Your task to perform on an android device: turn pop-ups off in chrome Image 0: 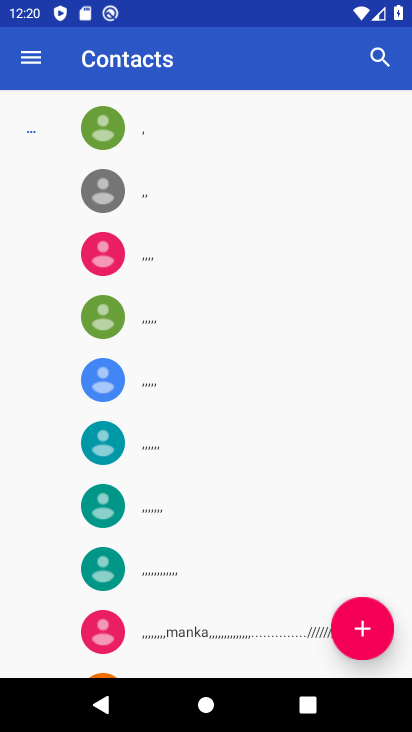
Step 0: press home button
Your task to perform on an android device: turn pop-ups off in chrome Image 1: 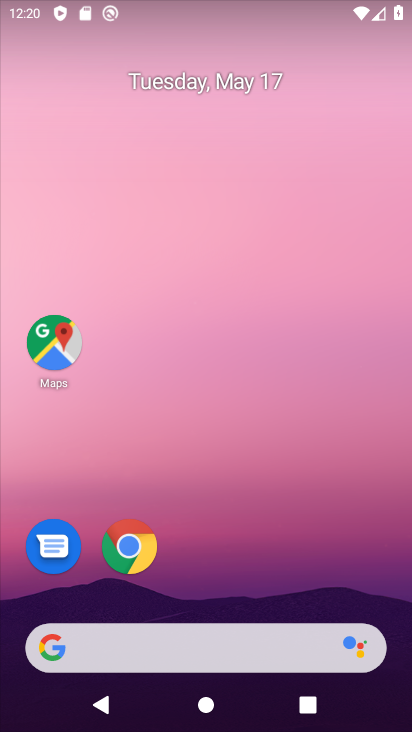
Step 1: click (147, 543)
Your task to perform on an android device: turn pop-ups off in chrome Image 2: 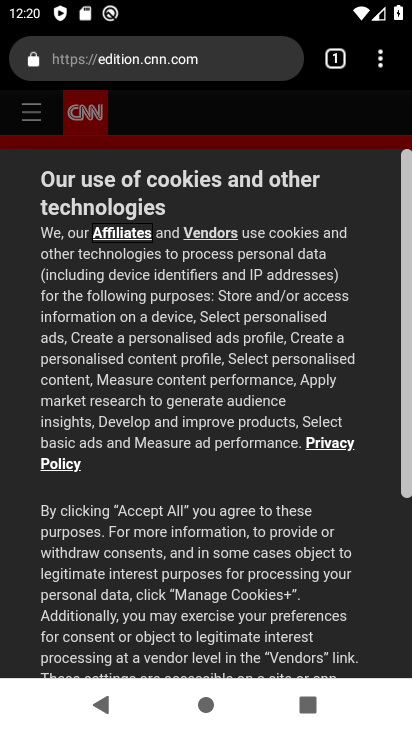
Step 2: drag from (376, 63) to (194, 575)
Your task to perform on an android device: turn pop-ups off in chrome Image 3: 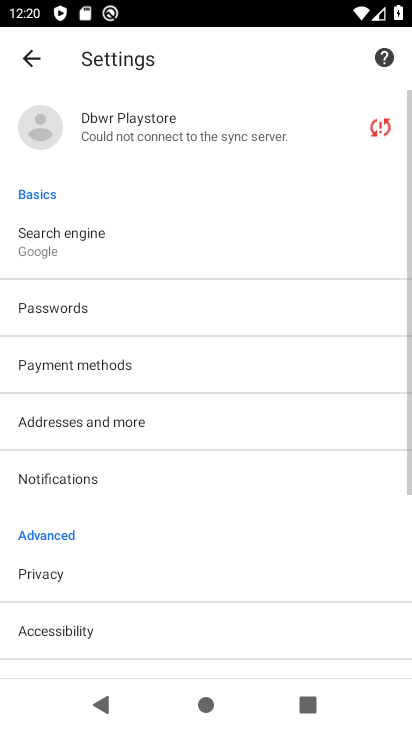
Step 3: drag from (220, 540) to (236, 277)
Your task to perform on an android device: turn pop-ups off in chrome Image 4: 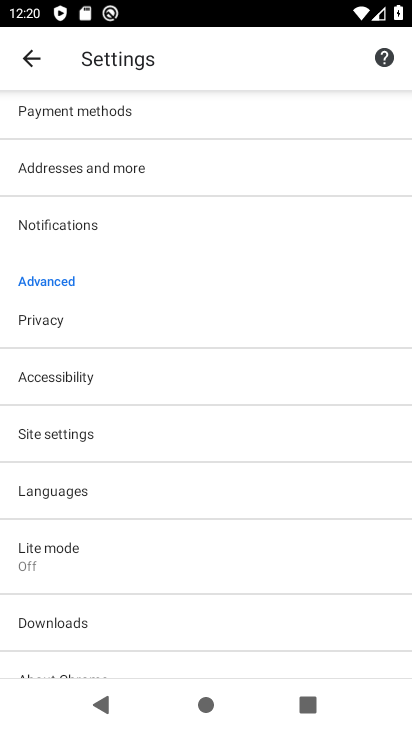
Step 4: click (125, 436)
Your task to perform on an android device: turn pop-ups off in chrome Image 5: 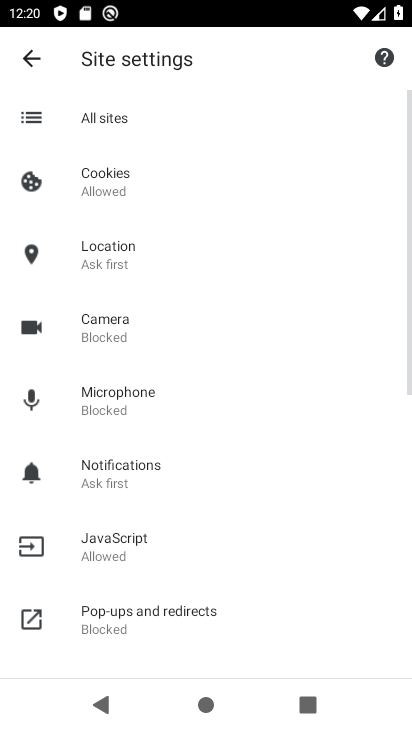
Step 5: click (169, 613)
Your task to perform on an android device: turn pop-ups off in chrome Image 6: 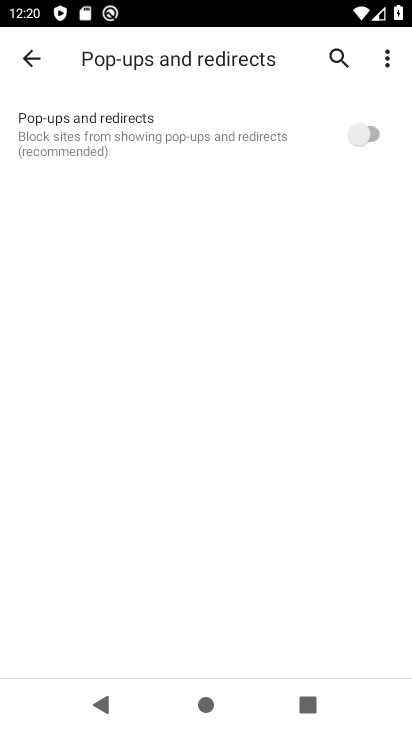
Step 6: task complete